Your task to perform on an android device: open chrome privacy settings Image 0: 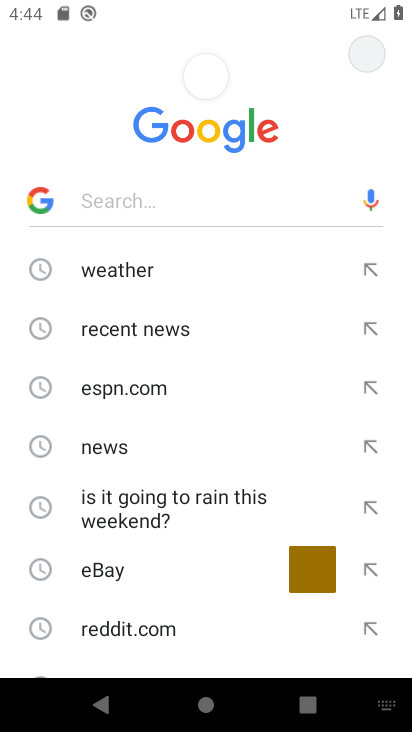
Step 0: press home button
Your task to perform on an android device: open chrome privacy settings Image 1: 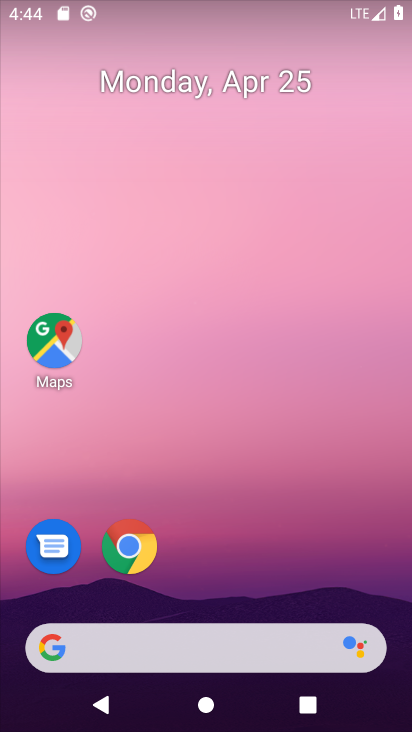
Step 1: click (121, 551)
Your task to perform on an android device: open chrome privacy settings Image 2: 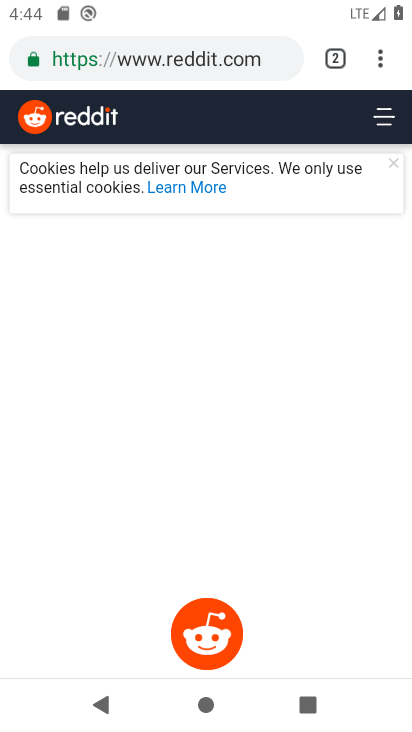
Step 2: click (390, 60)
Your task to perform on an android device: open chrome privacy settings Image 3: 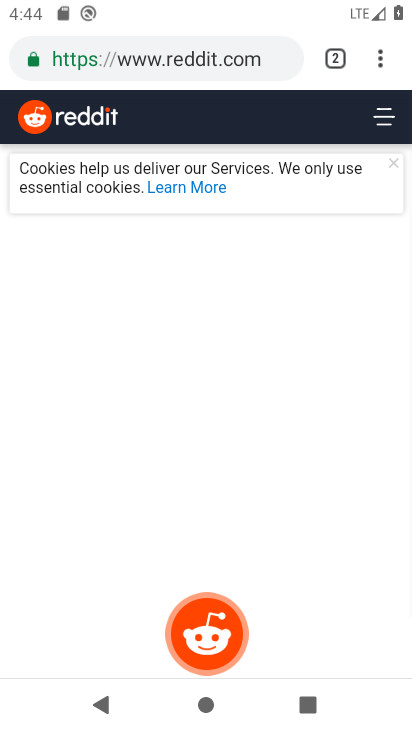
Step 3: click (403, 42)
Your task to perform on an android device: open chrome privacy settings Image 4: 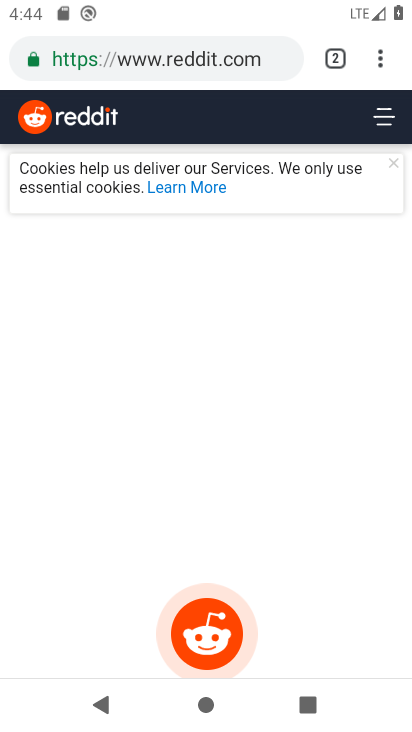
Step 4: click (390, 62)
Your task to perform on an android device: open chrome privacy settings Image 5: 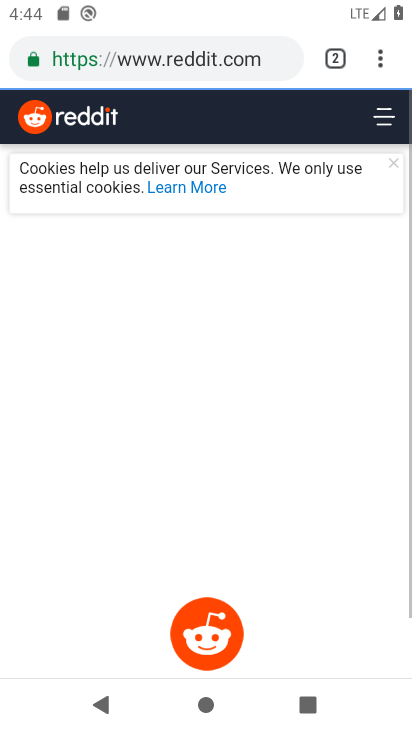
Step 5: click (390, 62)
Your task to perform on an android device: open chrome privacy settings Image 6: 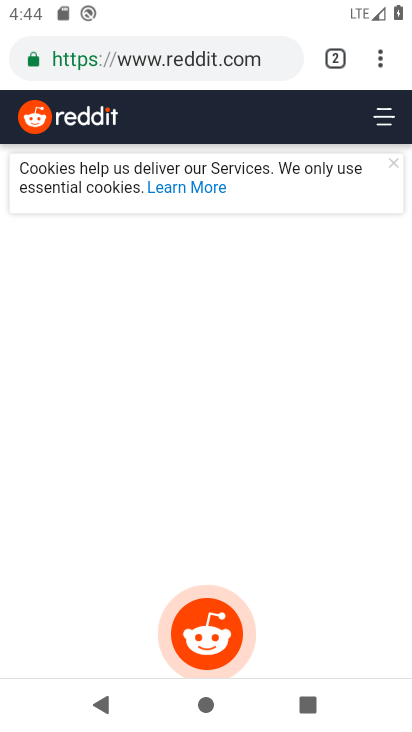
Step 6: click (390, 67)
Your task to perform on an android device: open chrome privacy settings Image 7: 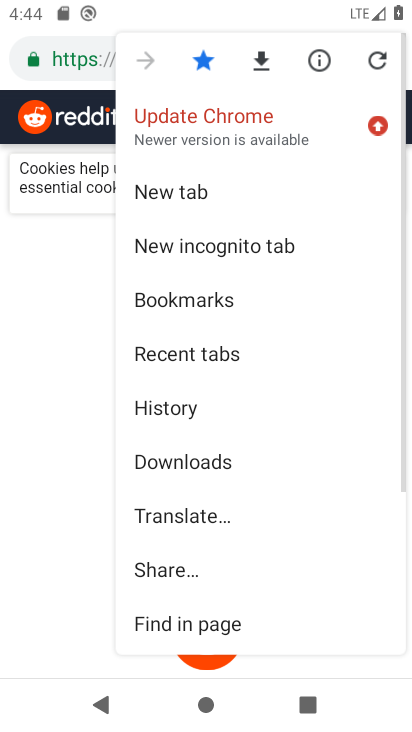
Step 7: drag from (375, 510) to (402, 193)
Your task to perform on an android device: open chrome privacy settings Image 8: 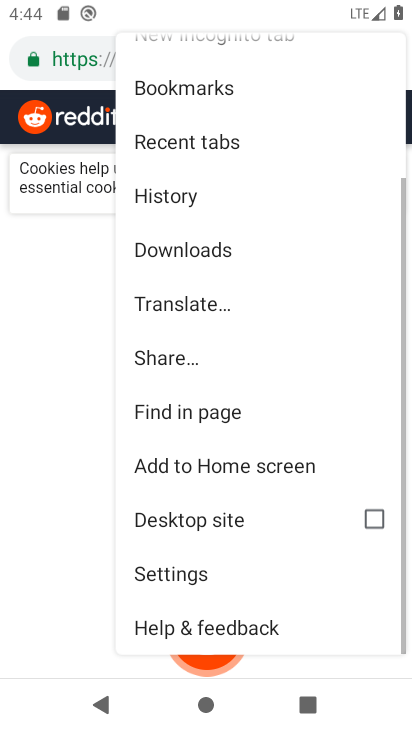
Step 8: click (262, 562)
Your task to perform on an android device: open chrome privacy settings Image 9: 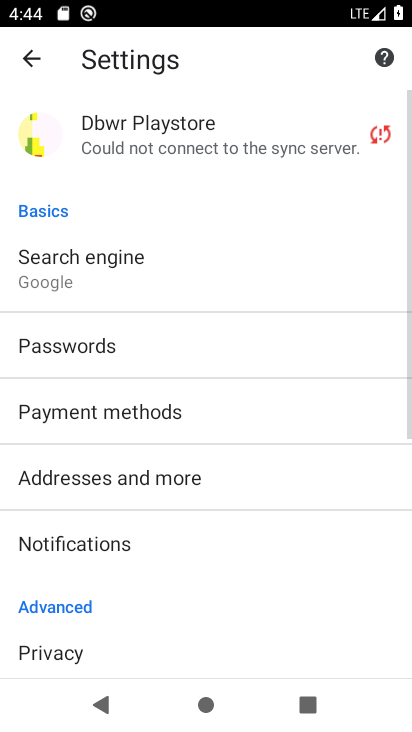
Step 9: click (88, 646)
Your task to perform on an android device: open chrome privacy settings Image 10: 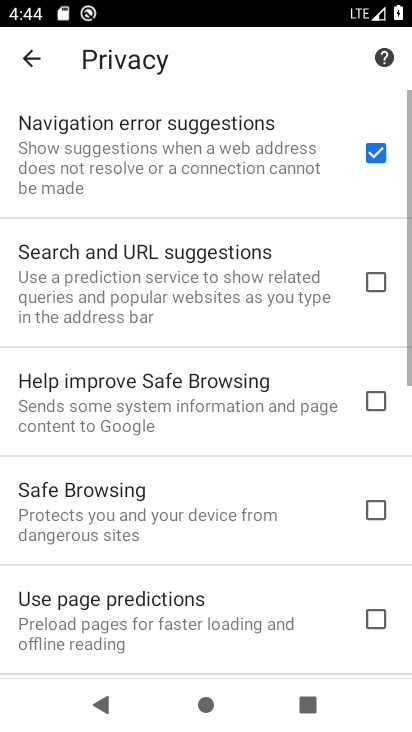
Step 10: task complete